Your task to perform on an android device: turn off smart reply in the gmail app Image 0: 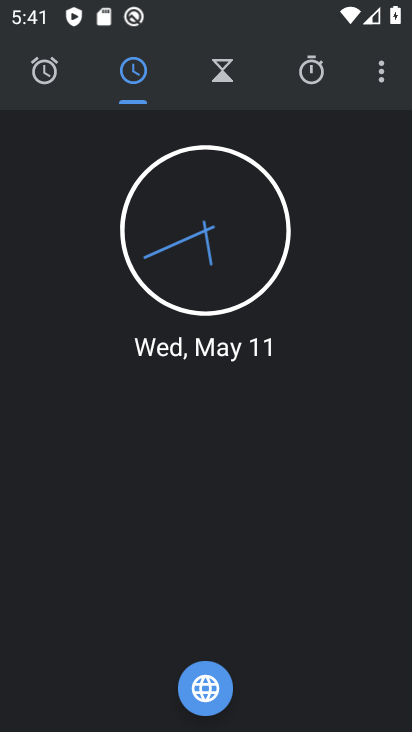
Step 0: press home button
Your task to perform on an android device: turn off smart reply in the gmail app Image 1: 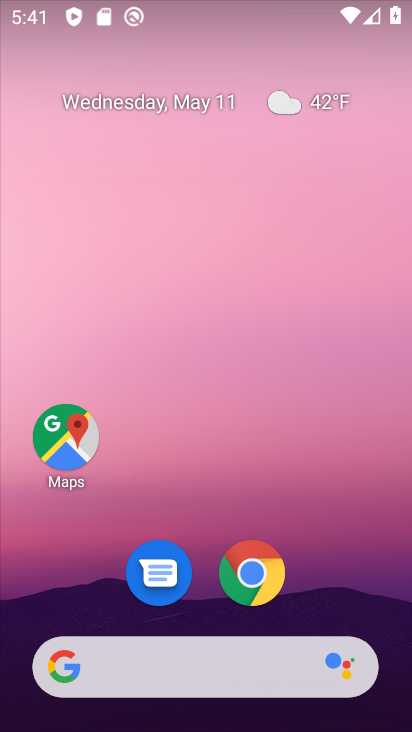
Step 1: drag from (286, 360) to (275, 248)
Your task to perform on an android device: turn off smart reply in the gmail app Image 2: 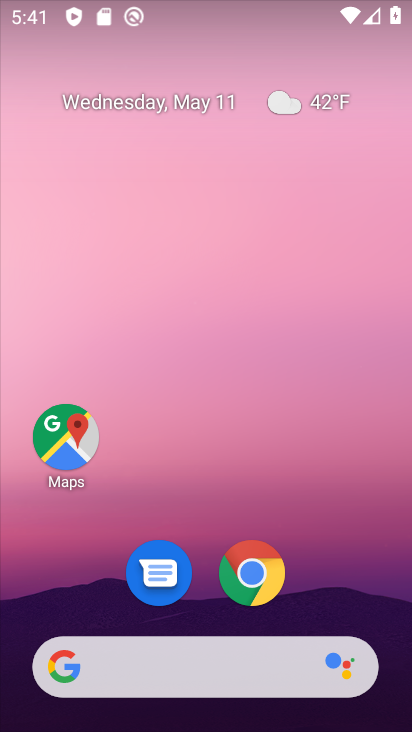
Step 2: drag from (334, 545) to (238, 48)
Your task to perform on an android device: turn off smart reply in the gmail app Image 3: 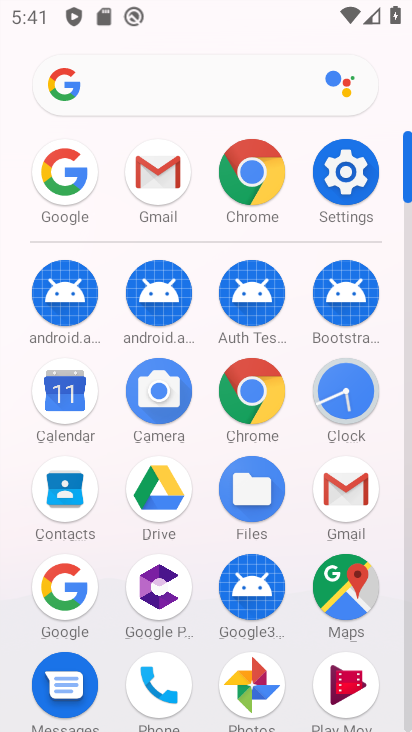
Step 3: click (162, 196)
Your task to perform on an android device: turn off smart reply in the gmail app Image 4: 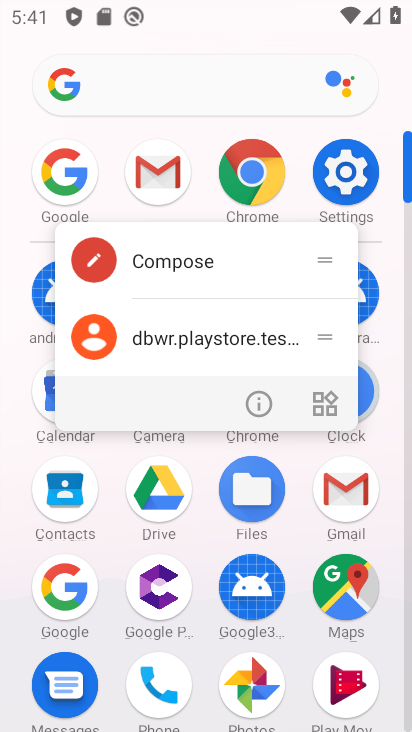
Step 4: click (160, 172)
Your task to perform on an android device: turn off smart reply in the gmail app Image 5: 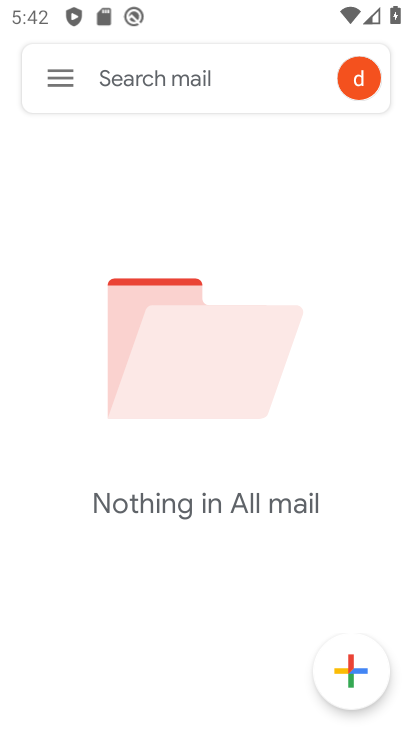
Step 5: click (64, 74)
Your task to perform on an android device: turn off smart reply in the gmail app Image 6: 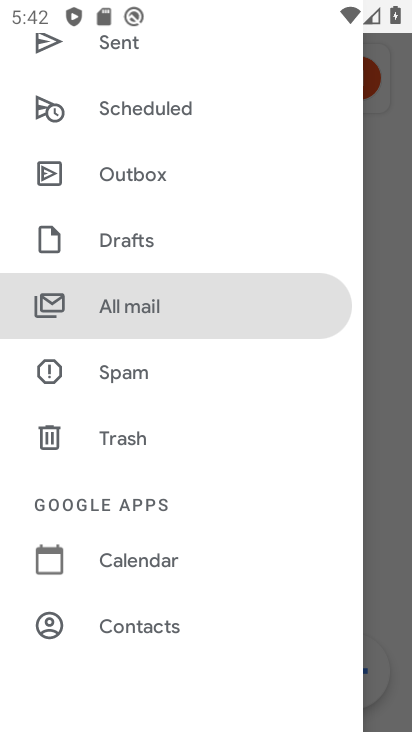
Step 6: drag from (235, 547) to (210, 283)
Your task to perform on an android device: turn off smart reply in the gmail app Image 7: 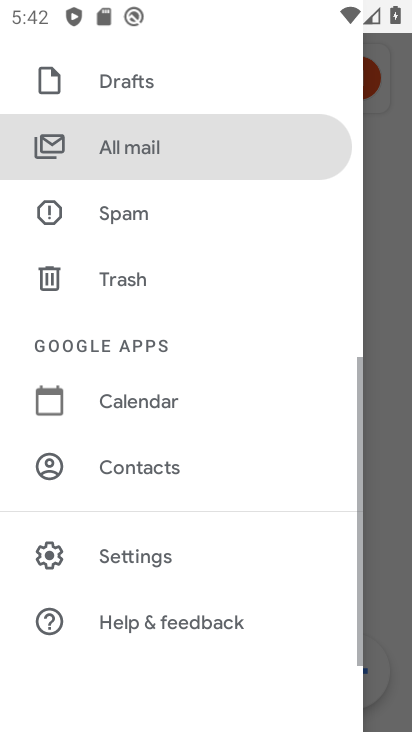
Step 7: click (190, 580)
Your task to perform on an android device: turn off smart reply in the gmail app Image 8: 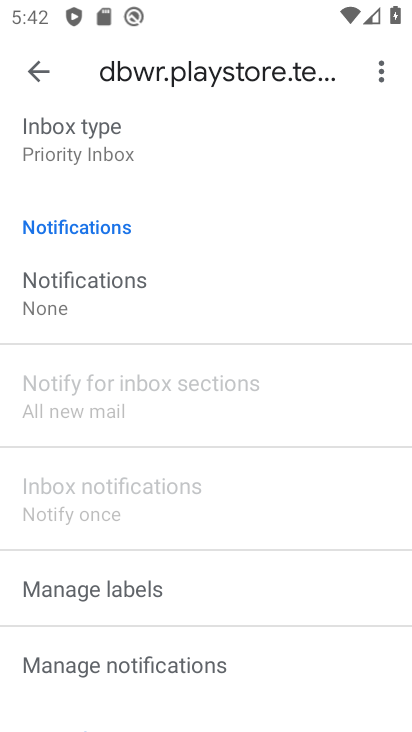
Step 8: drag from (163, 518) to (169, 281)
Your task to perform on an android device: turn off smart reply in the gmail app Image 9: 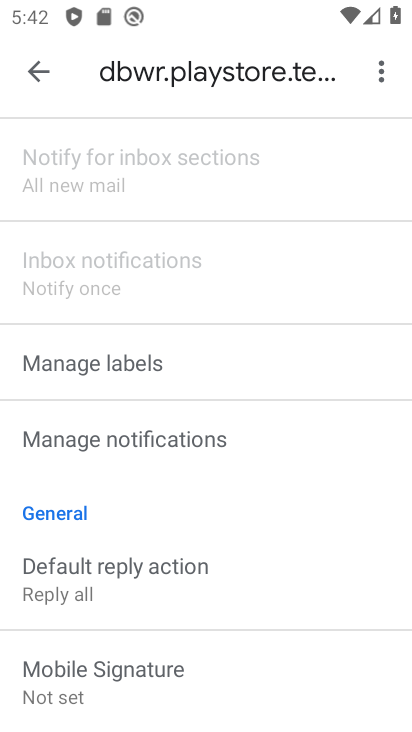
Step 9: drag from (282, 627) to (239, 252)
Your task to perform on an android device: turn off smart reply in the gmail app Image 10: 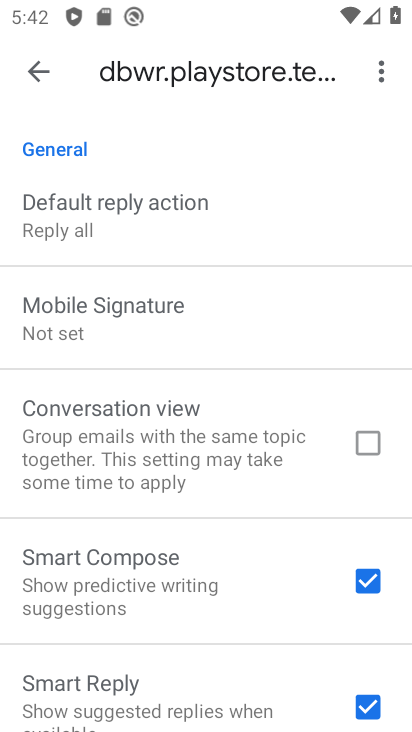
Step 10: click (364, 707)
Your task to perform on an android device: turn off smart reply in the gmail app Image 11: 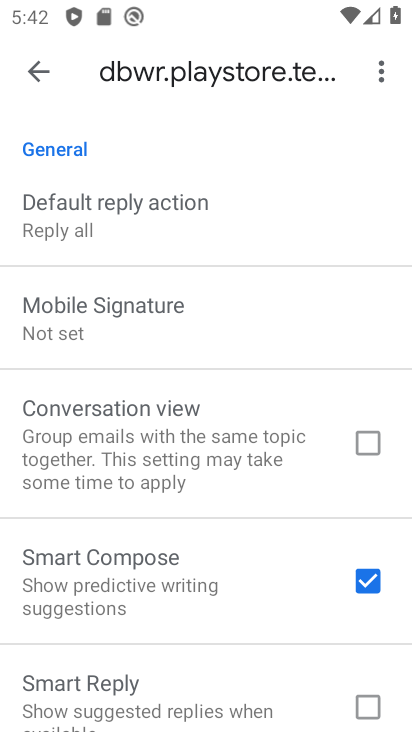
Step 11: task complete